Your task to perform on an android device: Clear the shopping cart on bestbuy.com. Image 0: 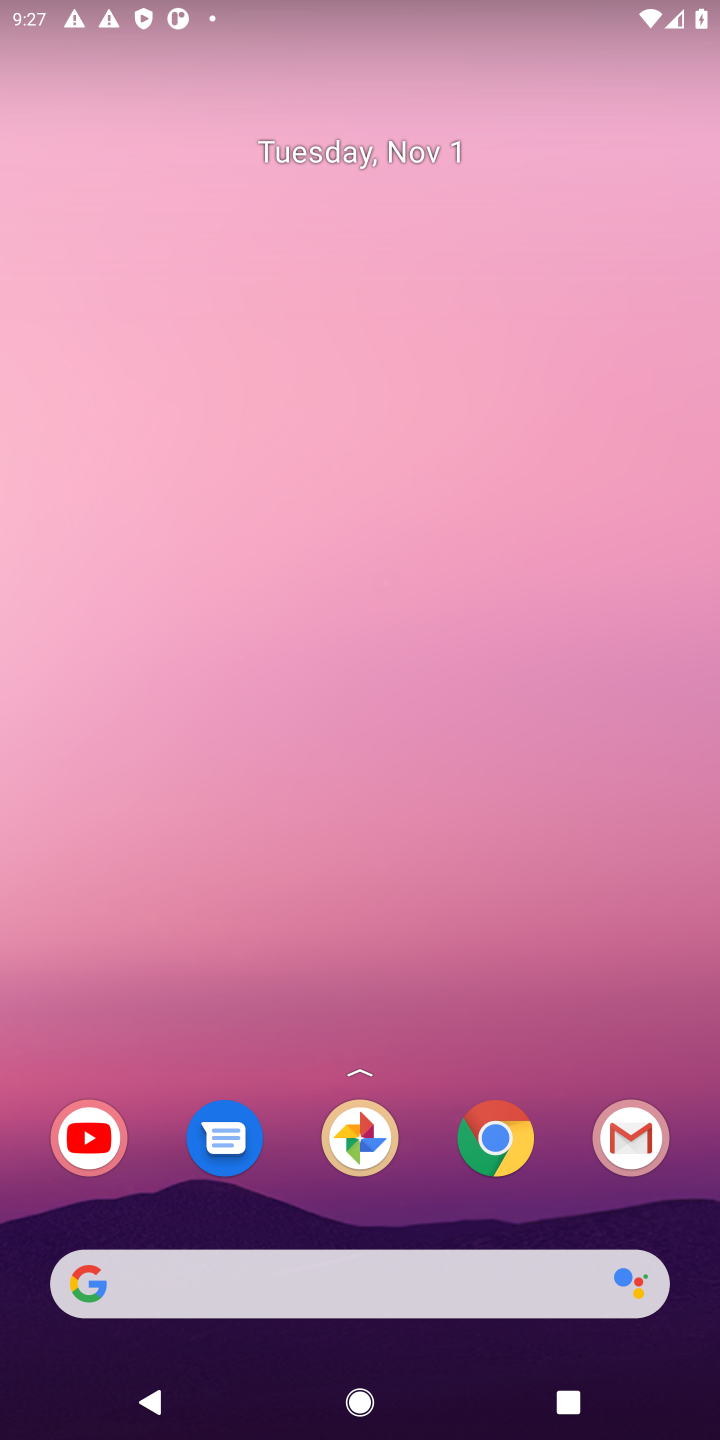
Step 0: click (501, 1142)
Your task to perform on an android device: Clear the shopping cart on bestbuy.com. Image 1: 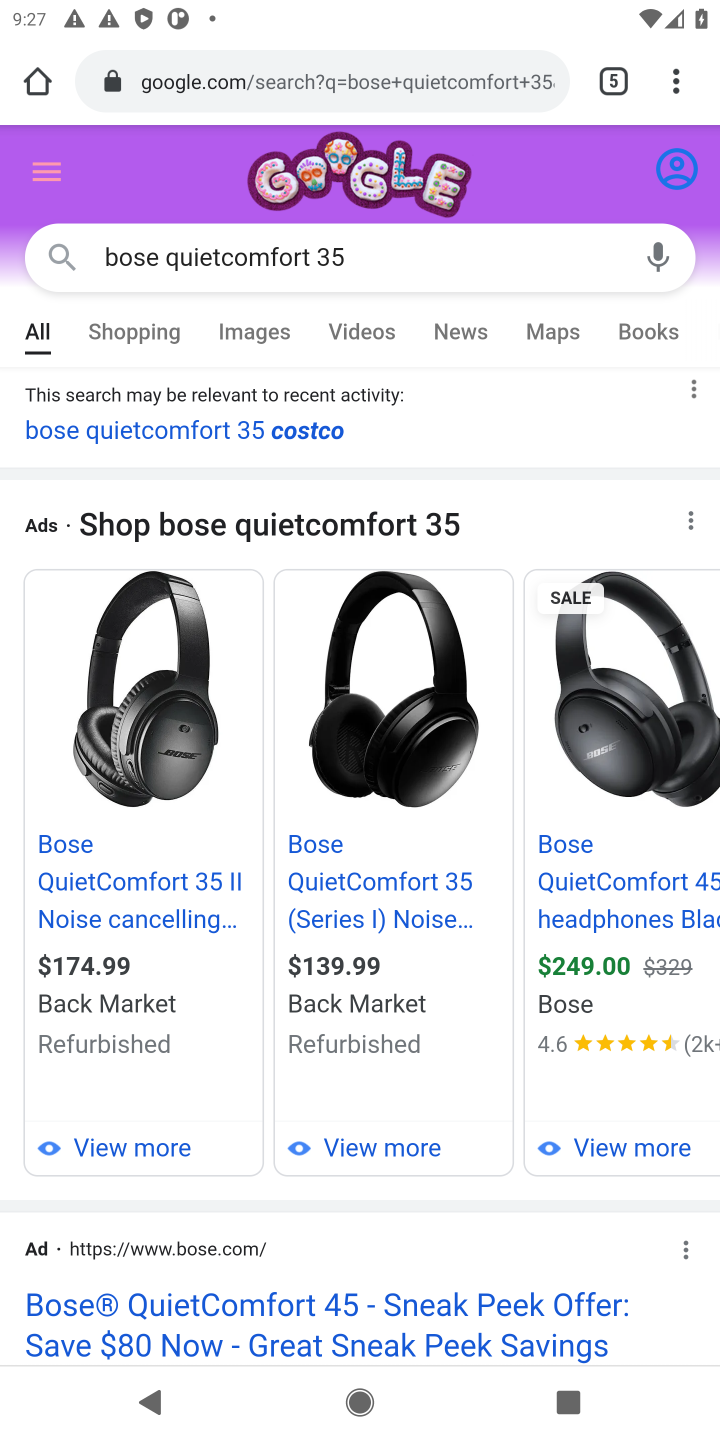
Step 1: click (385, 266)
Your task to perform on an android device: Clear the shopping cart on bestbuy.com. Image 2: 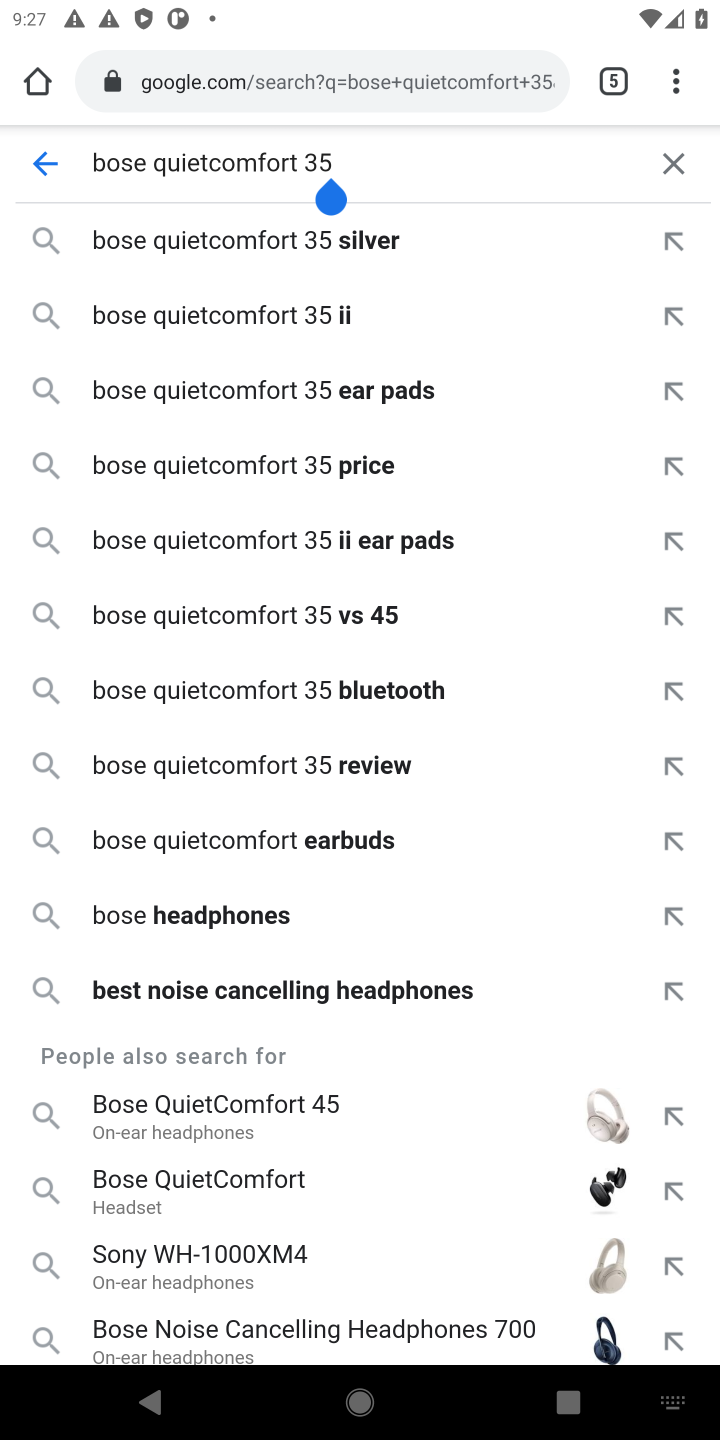
Step 2: click (677, 161)
Your task to perform on an android device: Clear the shopping cart on bestbuy.com. Image 3: 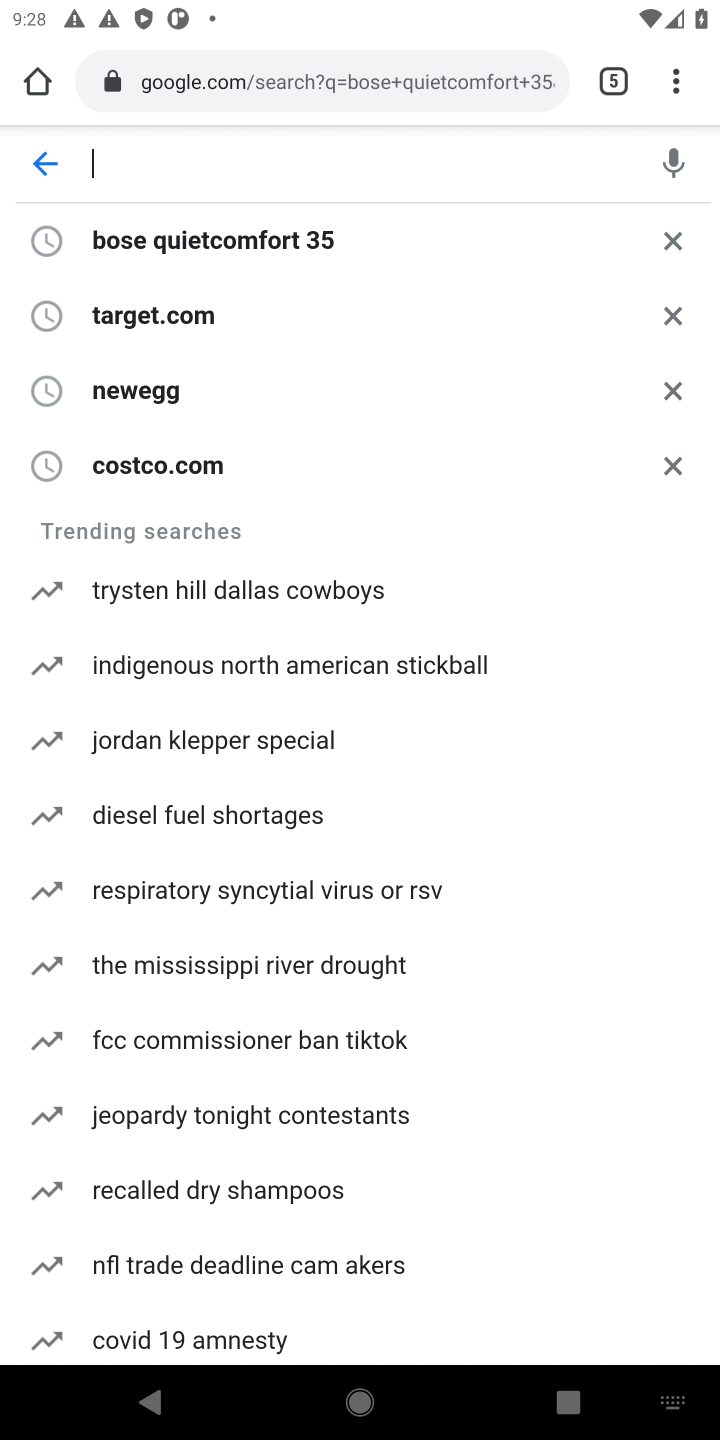
Step 3: type "bestbuy.com."
Your task to perform on an android device: Clear the shopping cart on bestbuy.com. Image 4: 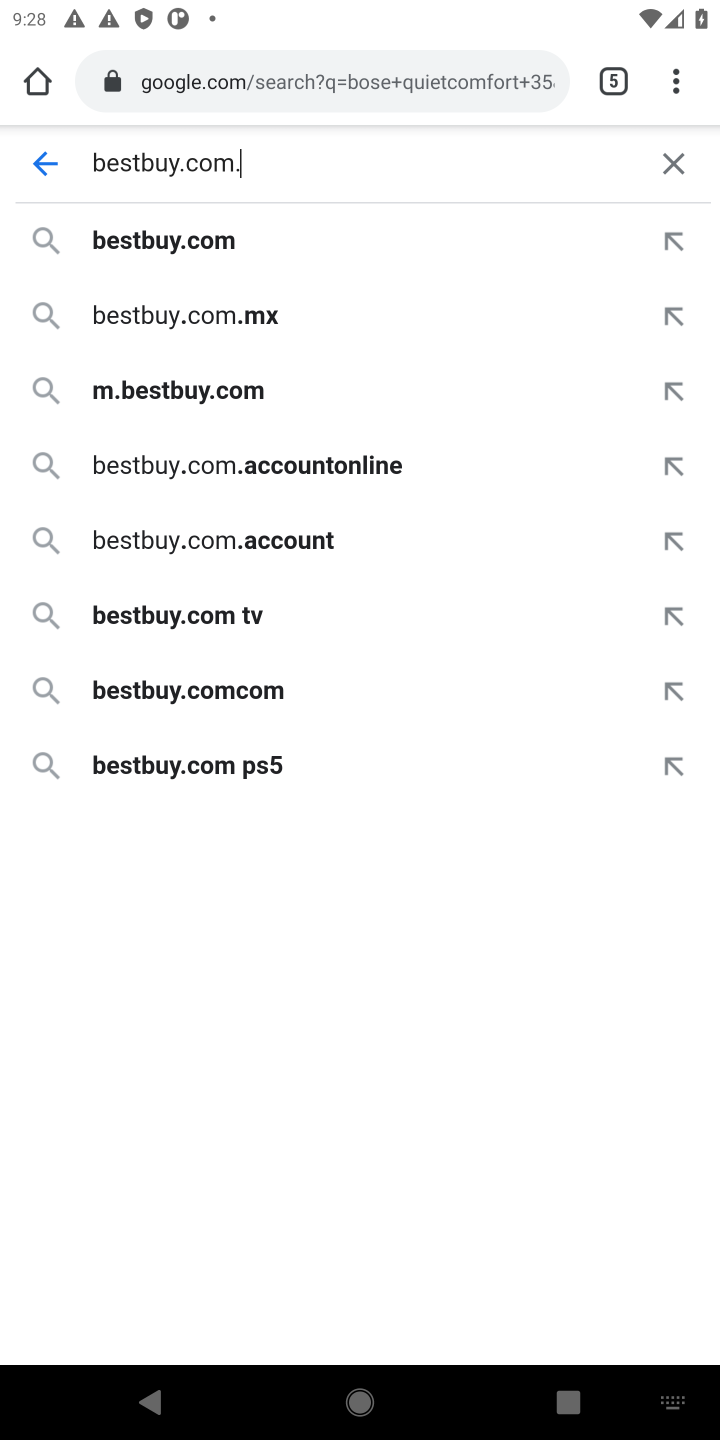
Step 4: click (133, 250)
Your task to perform on an android device: Clear the shopping cart on bestbuy.com. Image 5: 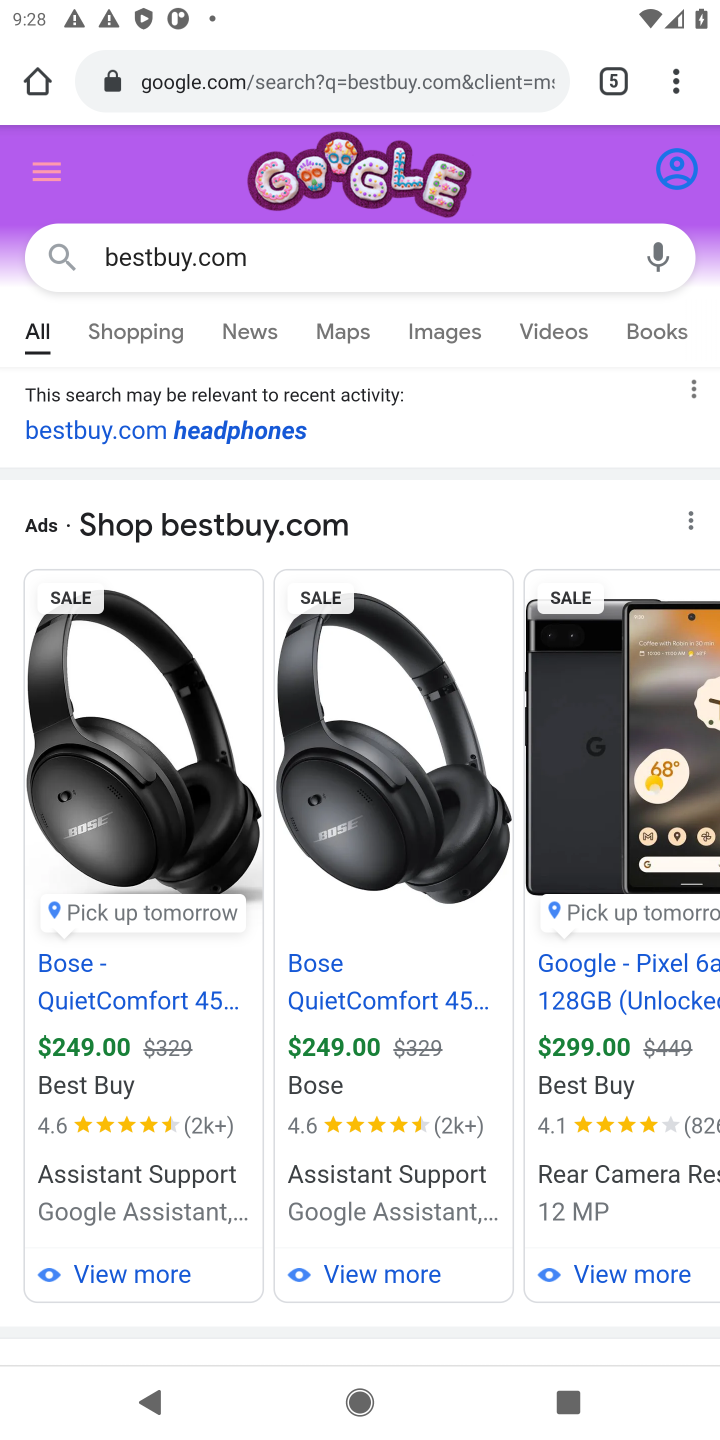
Step 5: drag from (428, 1224) to (354, 633)
Your task to perform on an android device: Clear the shopping cart on bestbuy.com. Image 6: 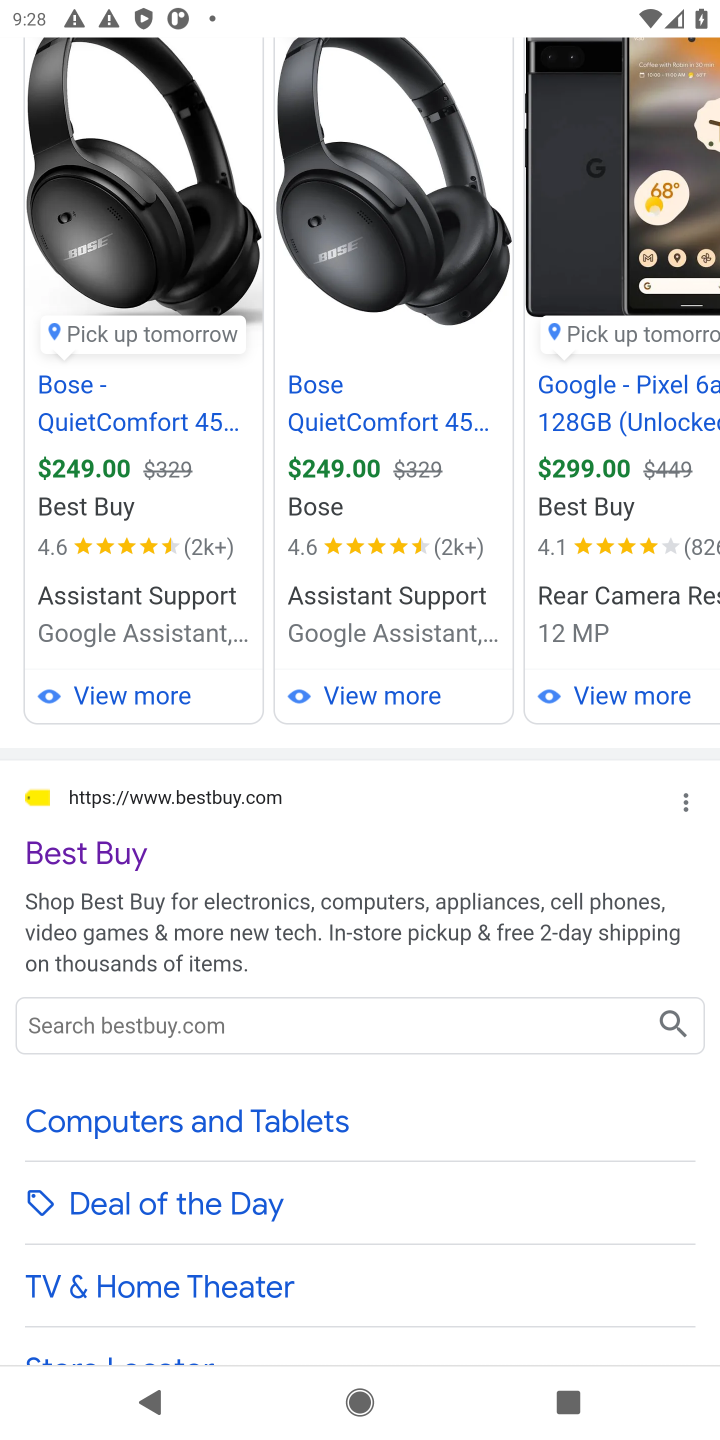
Step 6: click (97, 853)
Your task to perform on an android device: Clear the shopping cart on bestbuy.com. Image 7: 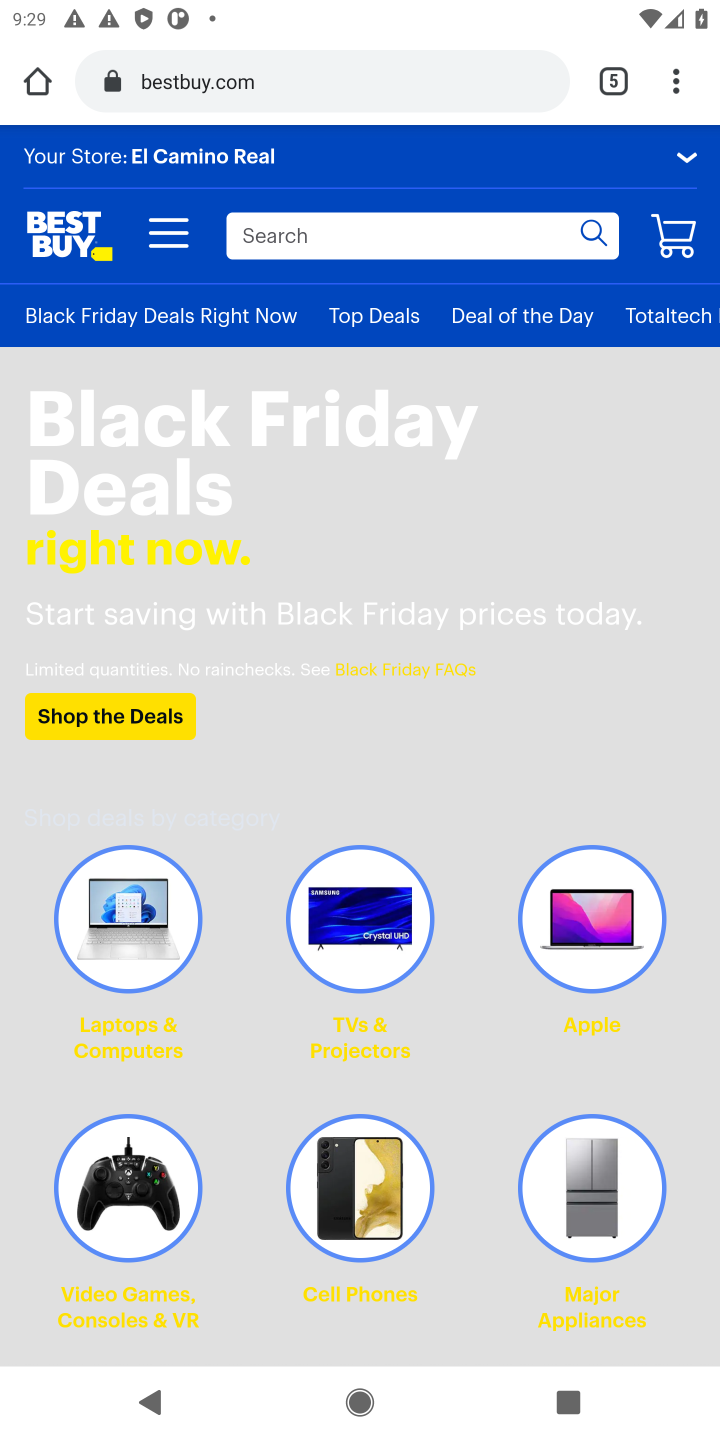
Step 7: click (670, 220)
Your task to perform on an android device: Clear the shopping cart on bestbuy.com. Image 8: 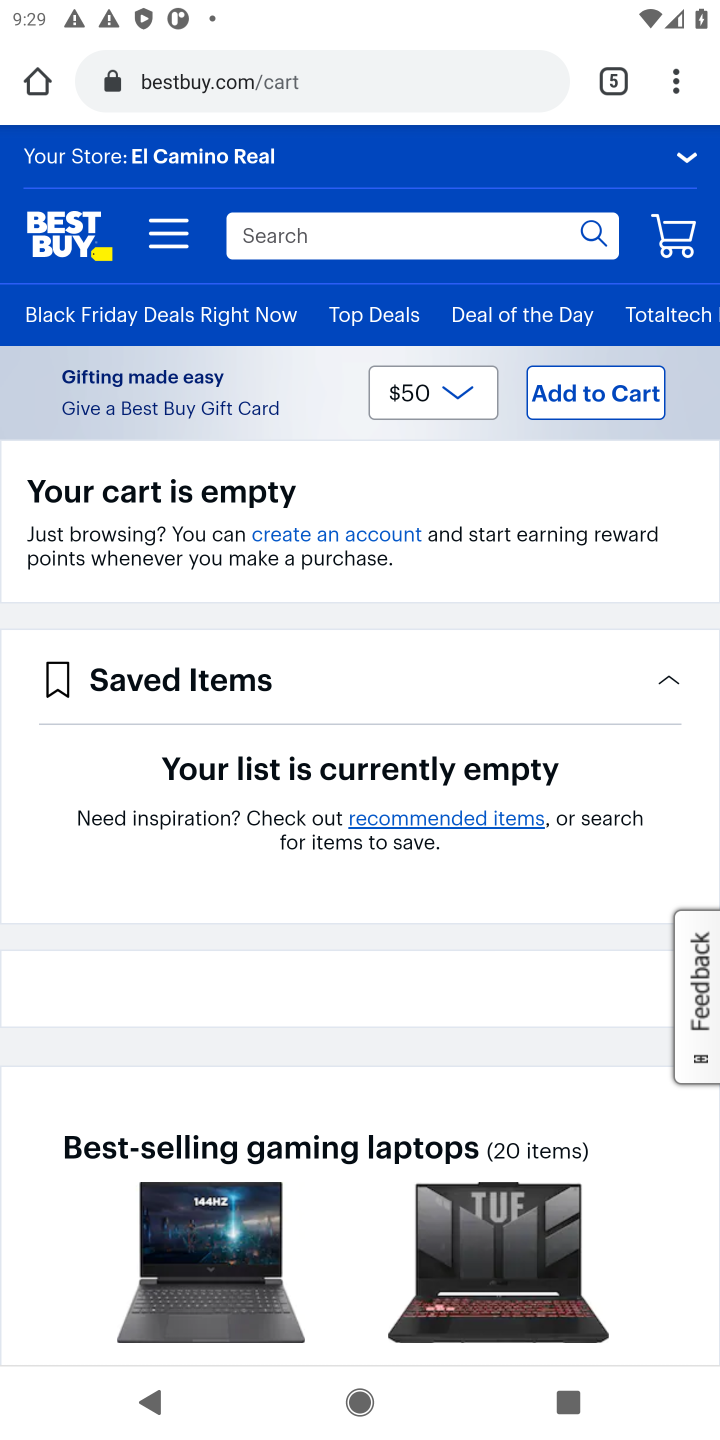
Step 8: task complete